Your task to perform on an android device: install app "McDonald's" Image 0: 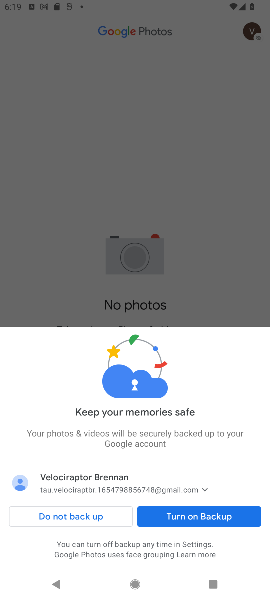
Step 0: press home button
Your task to perform on an android device: install app "McDonald's" Image 1: 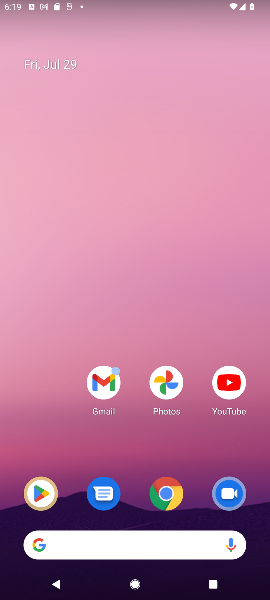
Step 1: click (35, 496)
Your task to perform on an android device: install app "McDonald's" Image 2: 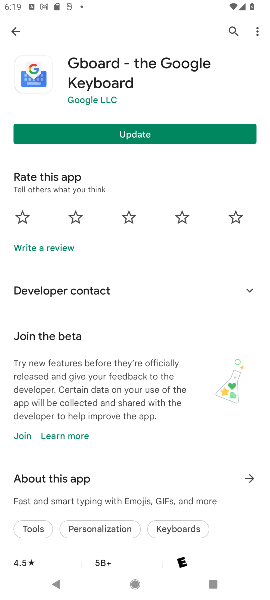
Step 2: click (229, 30)
Your task to perform on an android device: install app "McDonald's" Image 3: 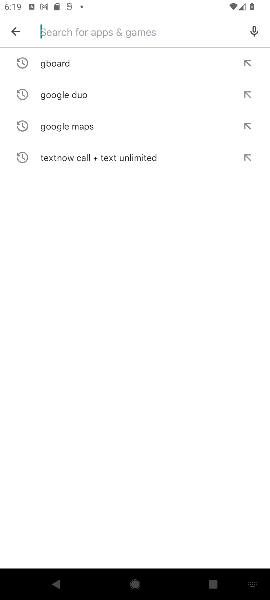
Step 3: type "McDonald"s"
Your task to perform on an android device: install app "McDonald's" Image 4: 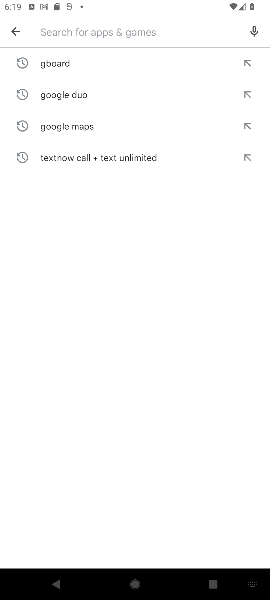
Step 4: type "McDonald's"
Your task to perform on an android device: install app "McDonald's" Image 5: 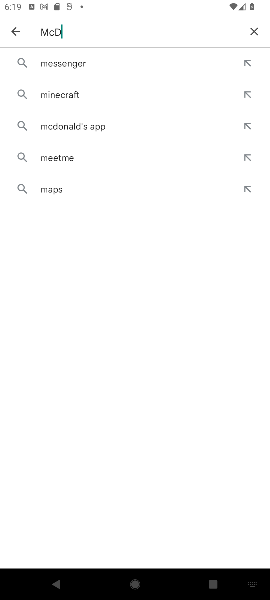
Step 5: type ""
Your task to perform on an android device: install app "McDonald's" Image 6: 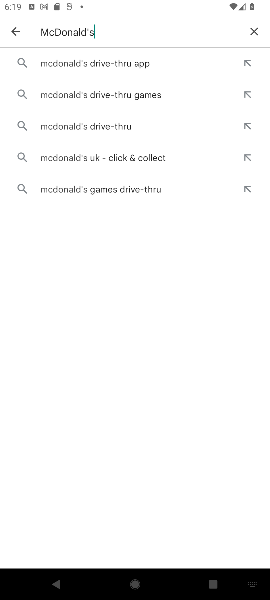
Step 6: click (90, 64)
Your task to perform on an android device: install app "McDonald's" Image 7: 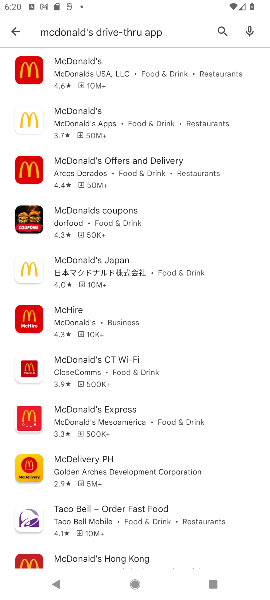
Step 7: click (68, 60)
Your task to perform on an android device: install app "McDonald's" Image 8: 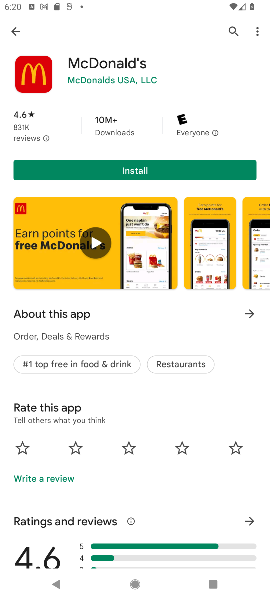
Step 8: click (135, 170)
Your task to perform on an android device: install app "McDonald's" Image 9: 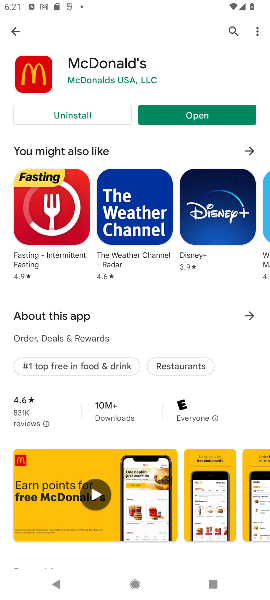
Step 9: task complete